Your task to perform on an android device: Open eBay Image 0: 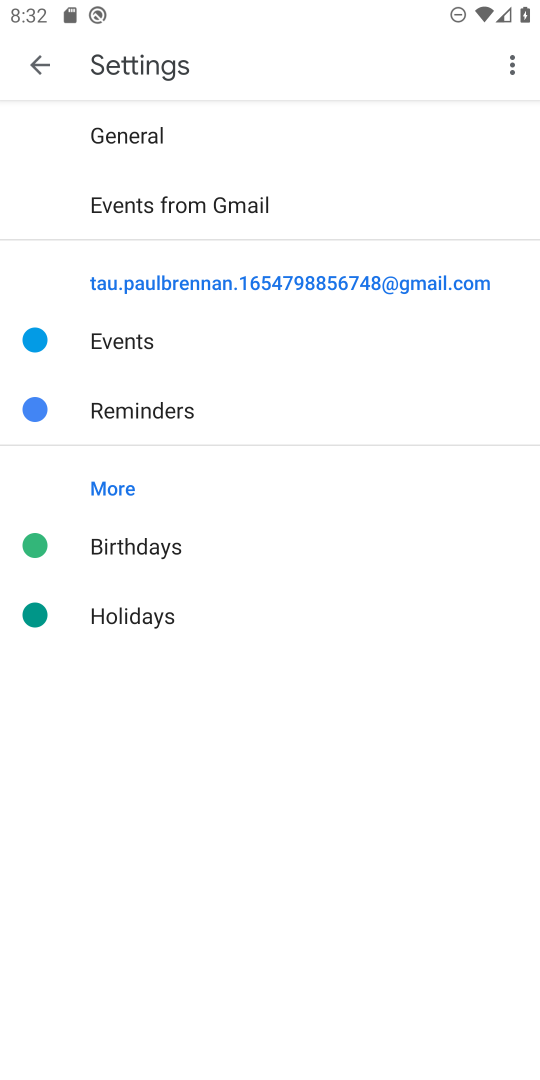
Step 0: press home button
Your task to perform on an android device: Open eBay Image 1: 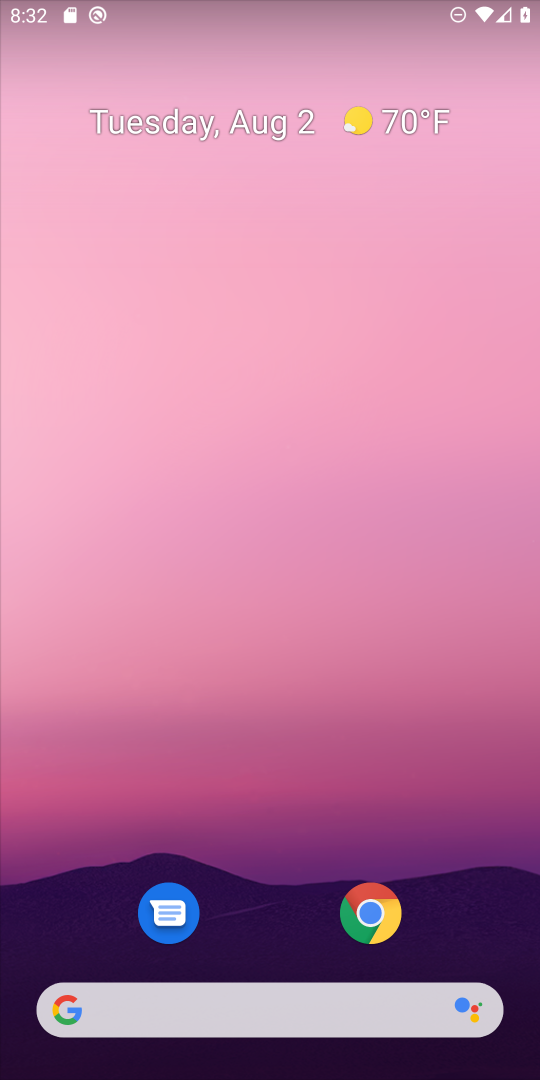
Step 1: click (374, 917)
Your task to perform on an android device: Open eBay Image 2: 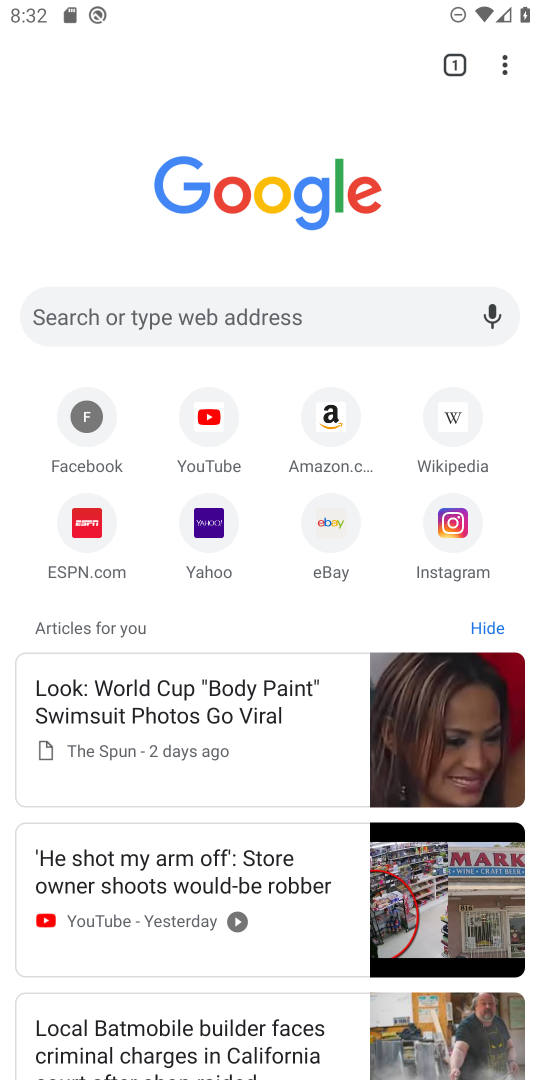
Step 2: click (319, 528)
Your task to perform on an android device: Open eBay Image 3: 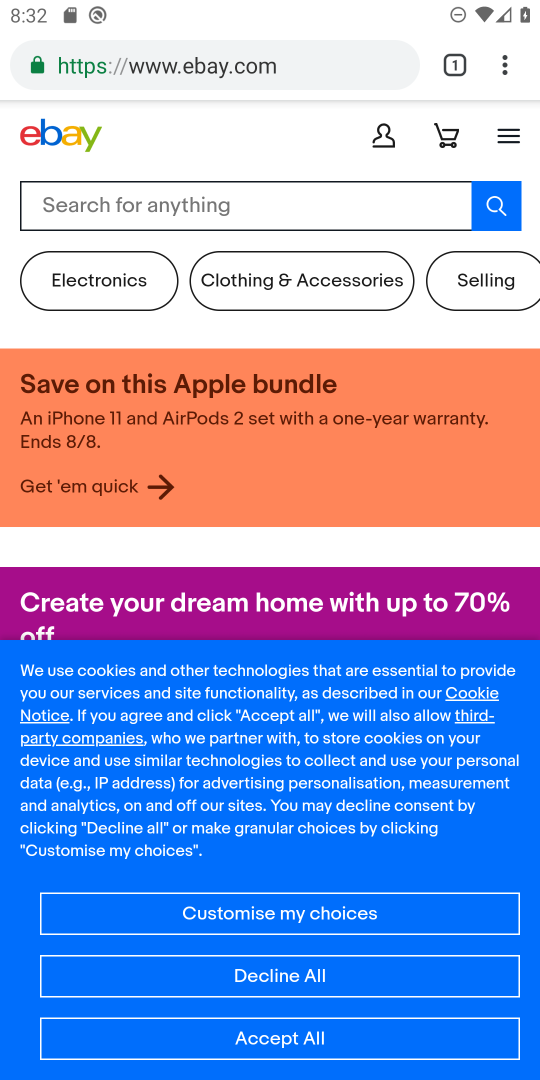
Step 3: task complete